Your task to perform on an android device: Show me recent news Image 0: 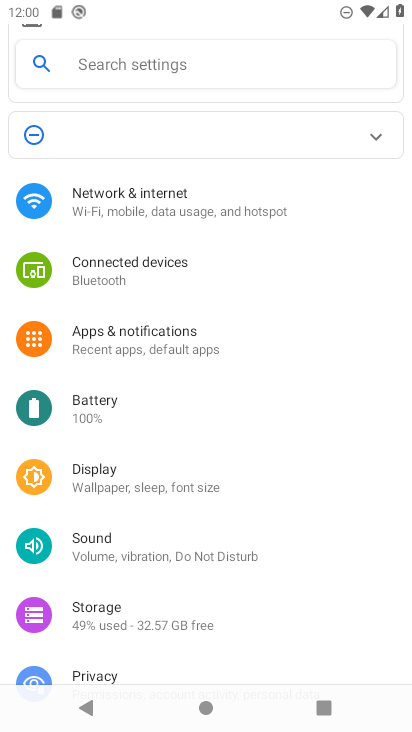
Step 0: press home button
Your task to perform on an android device: Show me recent news Image 1: 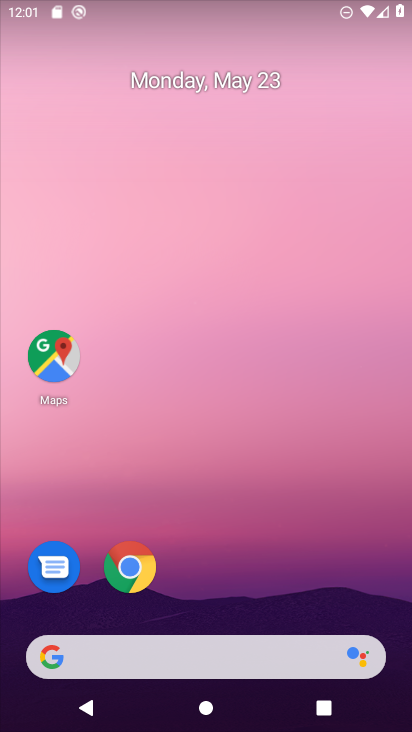
Step 1: click (114, 658)
Your task to perform on an android device: Show me recent news Image 2: 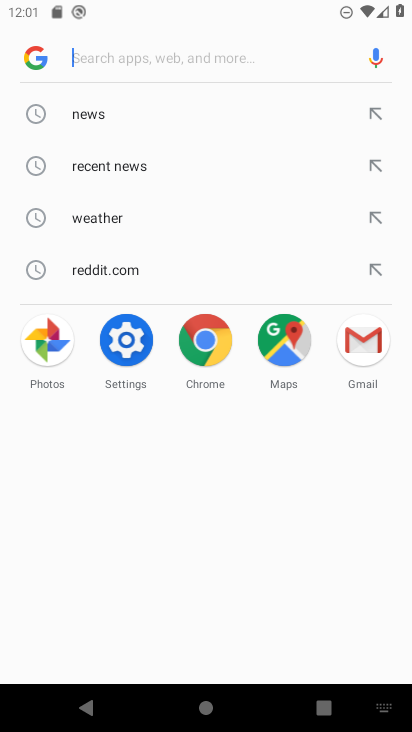
Step 2: click (96, 171)
Your task to perform on an android device: Show me recent news Image 3: 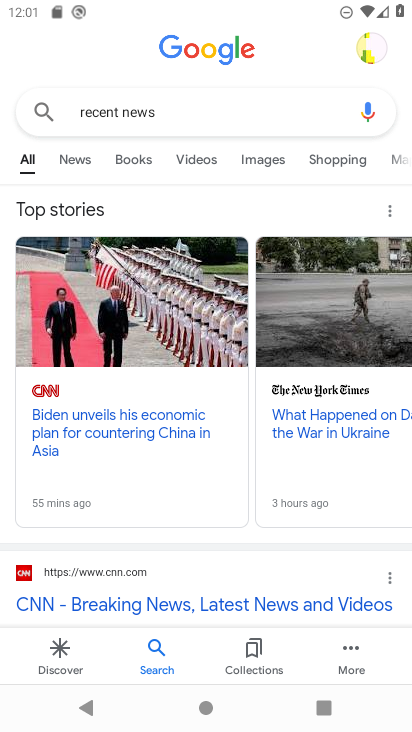
Step 3: task complete